Your task to perform on an android device: turn smart compose on in the gmail app Image 0: 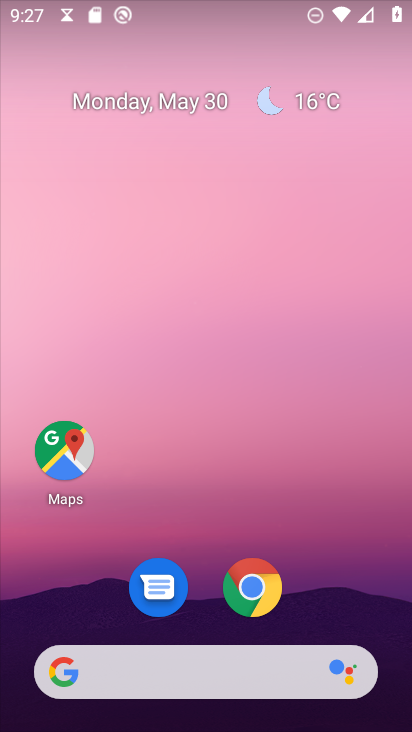
Step 0: drag from (225, 676) to (329, 86)
Your task to perform on an android device: turn smart compose on in the gmail app Image 1: 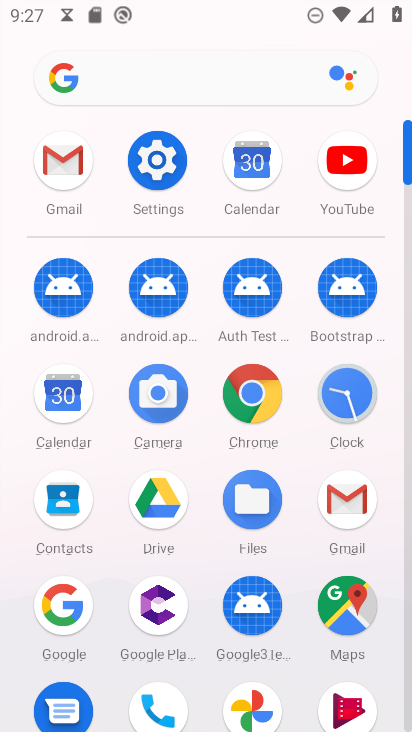
Step 1: click (65, 171)
Your task to perform on an android device: turn smart compose on in the gmail app Image 2: 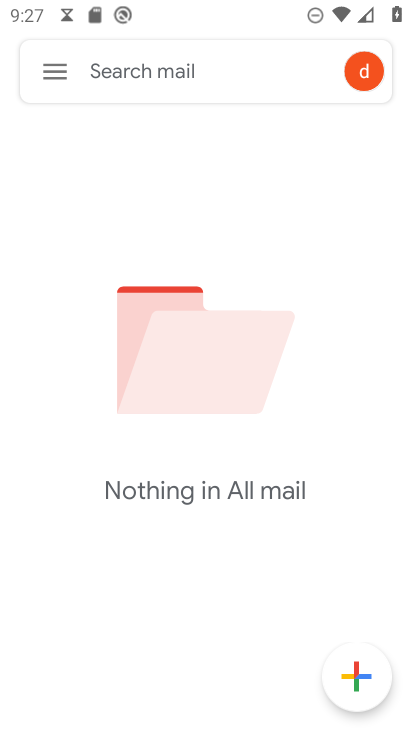
Step 2: click (51, 64)
Your task to perform on an android device: turn smart compose on in the gmail app Image 3: 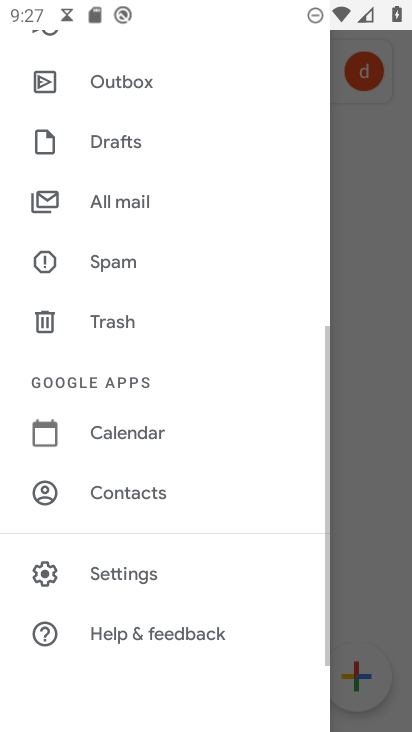
Step 3: click (148, 584)
Your task to perform on an android device: turn smart compose on in the gmail app Image 4: 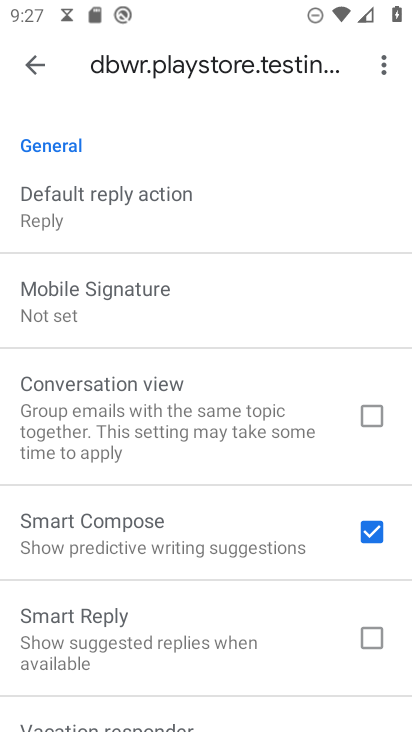
Step 4: task complete